Your task to perform on an android device: delete a single message in the gmail app Image 0: 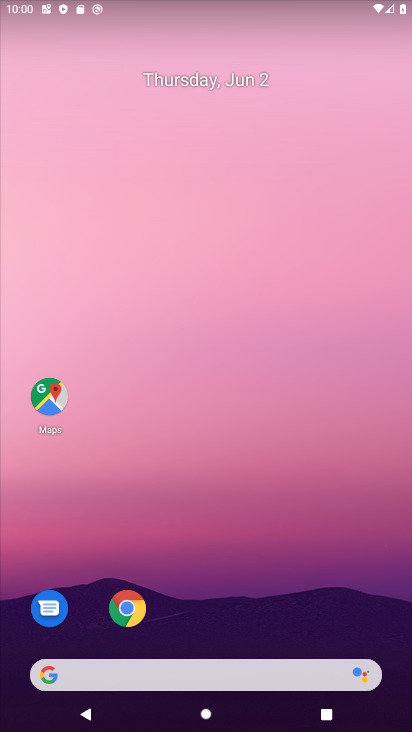
Step 0: drag from (178, 667) to (270, 114)
Your task to perform on an android device: delete a single message in the gmail app Image 1: 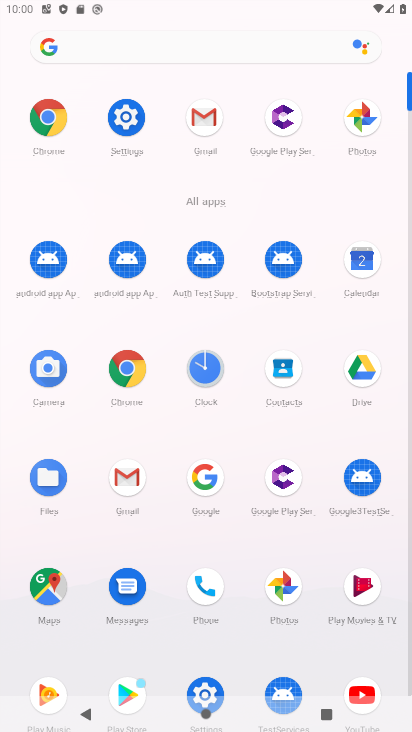
Step 1: click (121, 478)
Your task to perform on an android device: delete a single message in the gmail app Image 2: 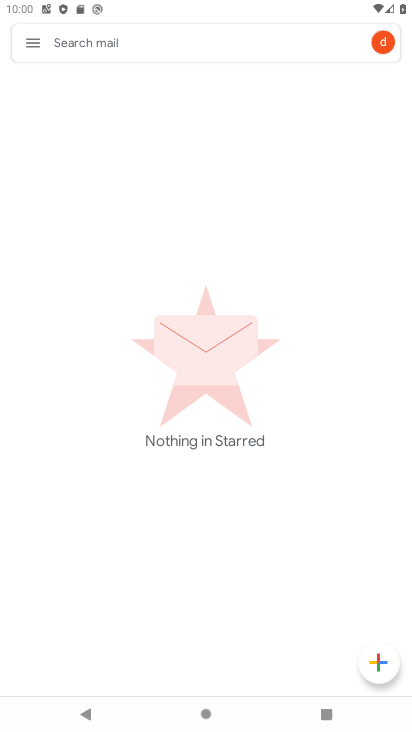
Step 2: click (41, 36)
Your task to perform on an android device: delete a single message in the gmail app Image 3: 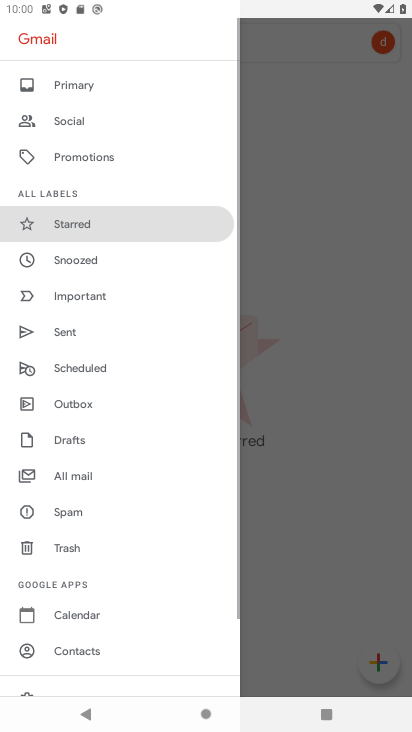
Step 3: drag from (136, 612) to (164, 365)
Your task to perform on an android device: delete a single message in the gmail app Image 4: 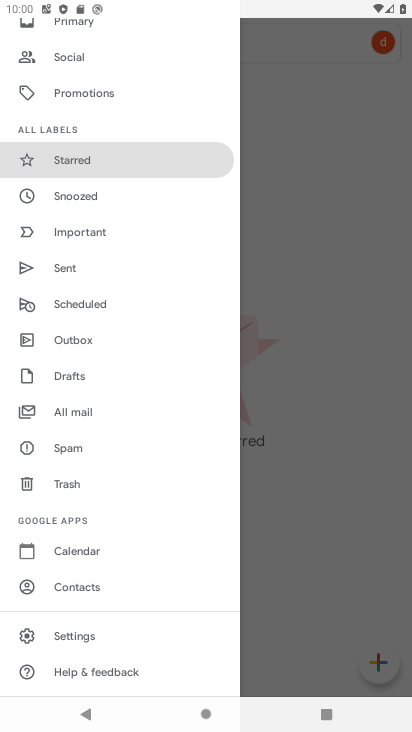
Step 4: click (115, 410)
Your task to perform on an android device: delete a single message in the gmail app Image 5: 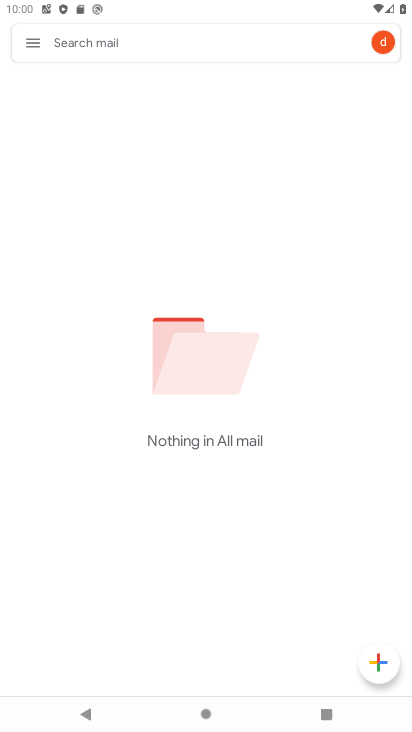
Step 5: task complete